Your task to perform on an android device: Open Yahoo.com Image 0: 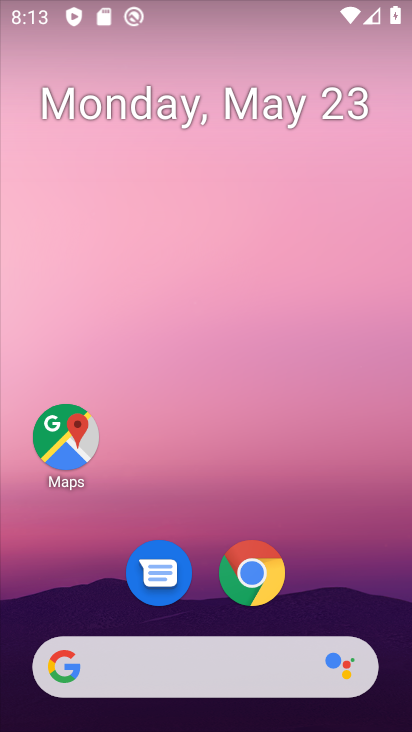
Step 0: press home button
Your task to perform on an android device: Open Yahoo.com Image 1: 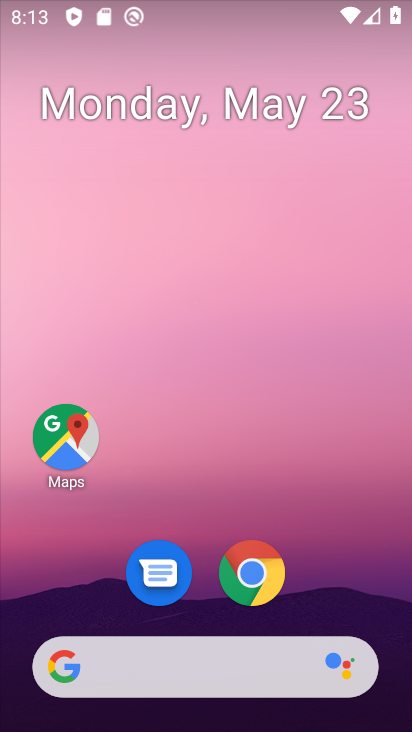
Step 1: click (241, 580)
Your task to perform on an android device: Open Yahoo.com Image 2: 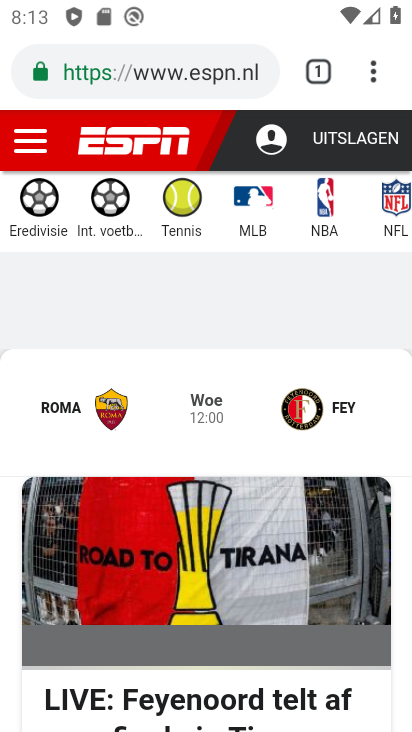
Step 2: click (326, 64)
Your task to perform on an android device: Open Yahoo.com Image 3: 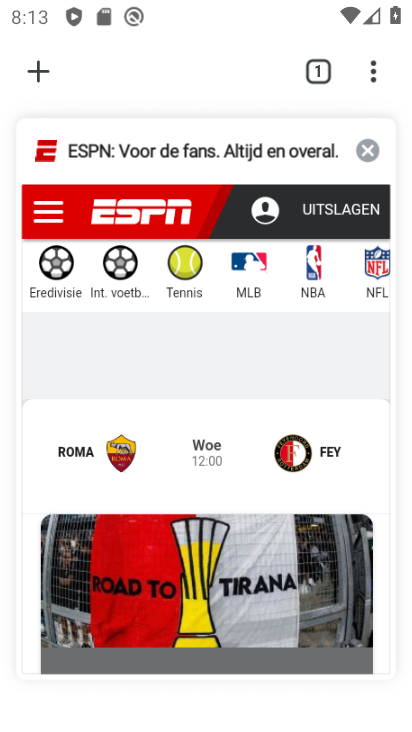
Step 3: click (369, 153)
Your task to perform on an android device: Open Yahoo.com Image 4: 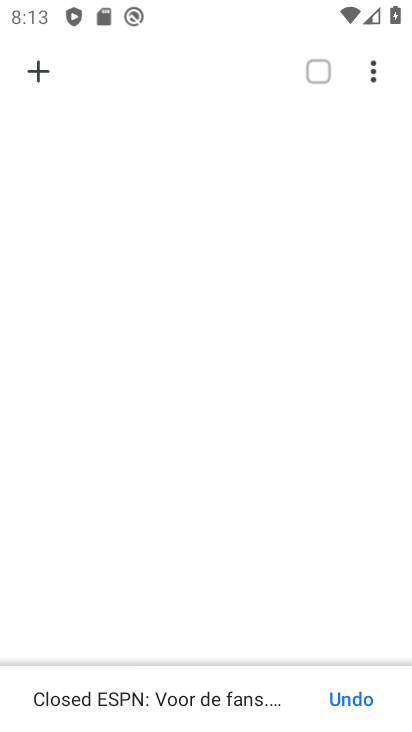
Step 4: click (44, 71)
Your task to perform on an android device: Open Yahoo.com Image 5: 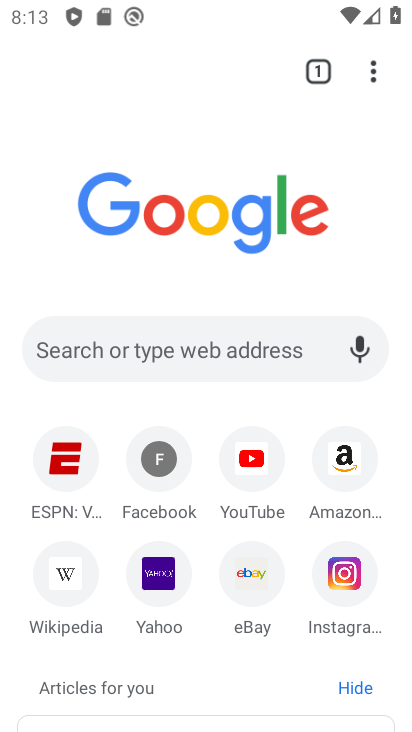
Step 5: click (158, 568)
Your task to perform on an android device: Open Yahoo.com Image 6: 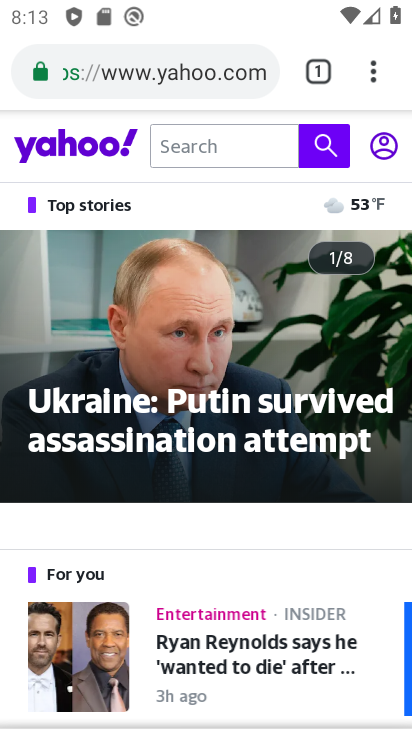
Step 6: task complete